Your task to perform on an android device: Clear all items from cart on target.com. Add macbook pro 13 inch to the cart on target.com, then select checkout. Image 0: 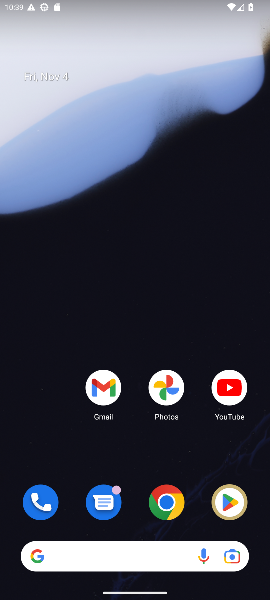
Step 0: drag from (135, 450) to (184, 29)
Your task to perform on an android device: Clear all items from cart on target.com. Add macbook pro 13 inch to the cart on target.com, then select checkout. Image 1: 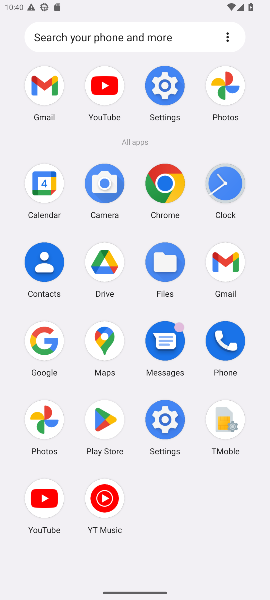
Step 1: click (163, 182)
Your task to perform on an android device: Clear all items from cart on target.com. Add macbook pro 13 inch to the cart on target.com, then select checkout. Image 2: 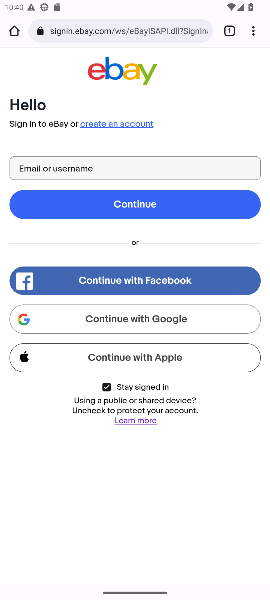
Step 2: click (151, 34)
Your task to perform on an android device: Clear all items from cart on target.com. Add macbook pro 13 inch to the cart on target.com, then select checkout. Image 3: 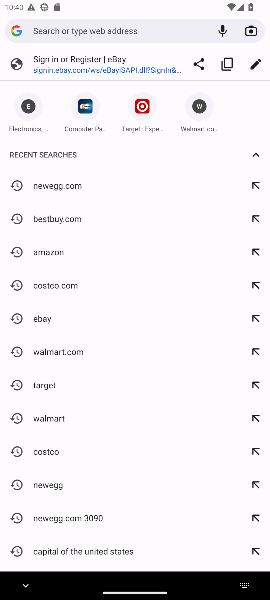
Step 3: type "target.com"
Your task to perform on an android device: Clear all items from cart on target.com. Add macbook pro 13 inch to the cart on target.com, then select checkout. Image 4: 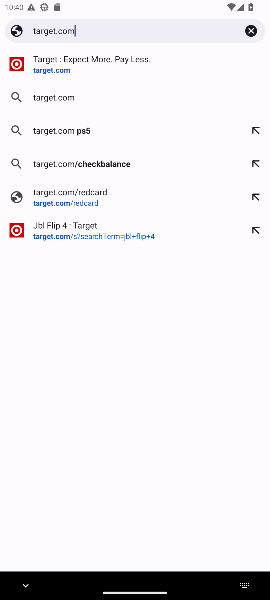
Step 4: press enter
Your task to perform on an android device: Clear all items from cart on target.com. Add macbook pro 13 inch to the cart on target.com, then select checkout. Image 5: 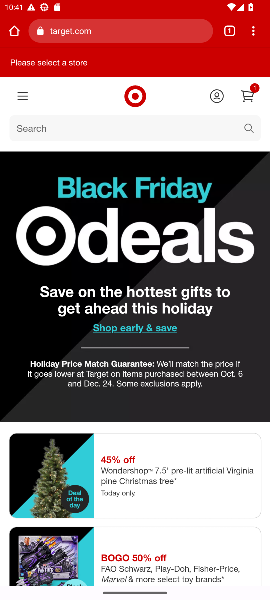
Step 5: click (250, 91)
Your task to perform on an android device: Clear all items from cart on target.com. Add macbook pro 13 inch to the cart on target.com, then select checkout. Image 6: 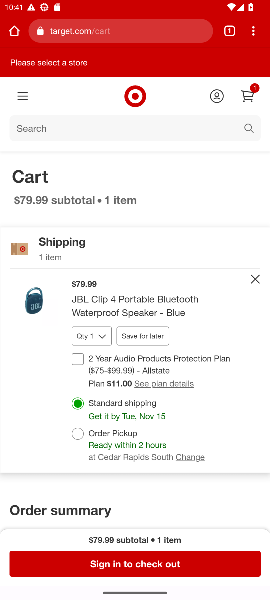
Step 6: click (253, 276)
Your task to perform on an android device: Clear all items from cart on target.com. Add macbook pro 13 inch to the cart on target.com, then select checkout. Image 7: 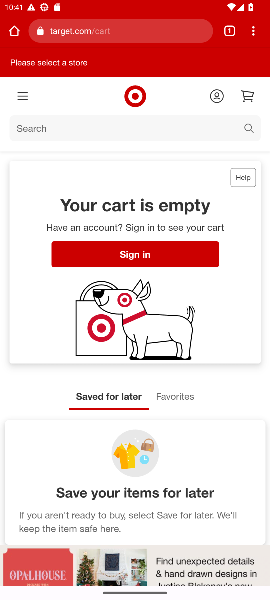
Step 7: click (147, 132)
Your task to perform on an android device: Clear all items from cart on target.com. Add macbook pro 13 inch to the cart on target.com, then select checkout. Image 8: 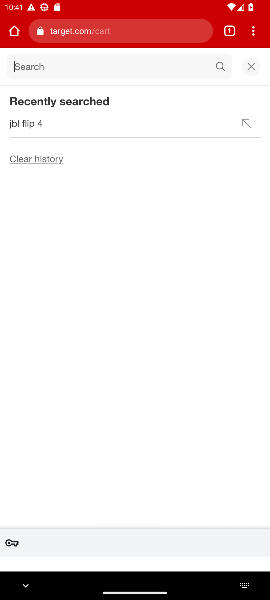
Step 8: type "macbook pro 13 inch"
Your task to perform on an android device: Clear all items from cart on target.com. Add macbook pro 13 inch to the cart on target.com, then select checkout. Image 9: 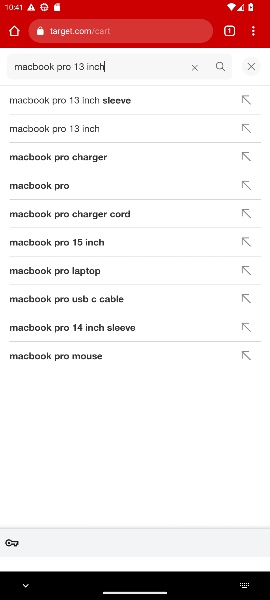
Step 9: press enter
Your task to perform on an android device: Clear all items from cart on target.com. Add macbook pro 13 inch to the cart on target.com, then select checkout. Image 10: 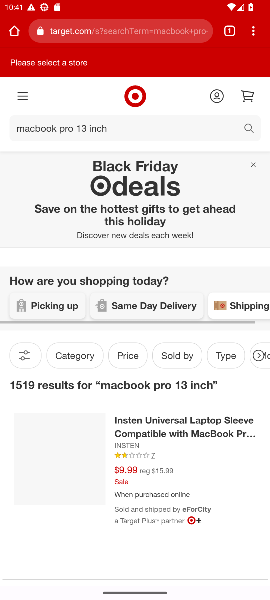
Step 10: task complete